Your task to perform on an android device: turn pop-ups off in chrome Image 0: 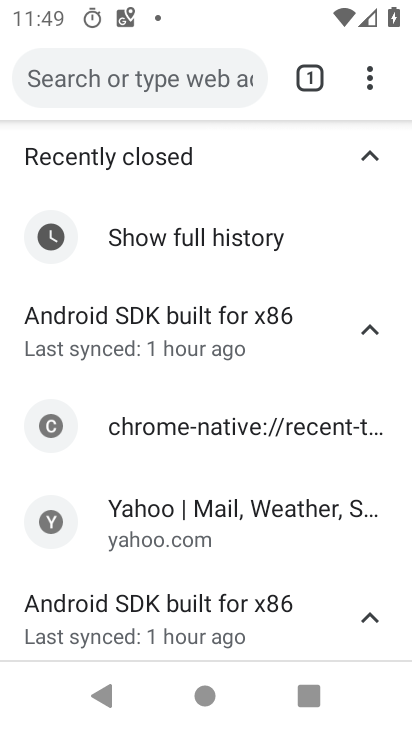
Step 0: press home button
Your task to perform on an android device: turn pop-ups off in chrome Image 1: 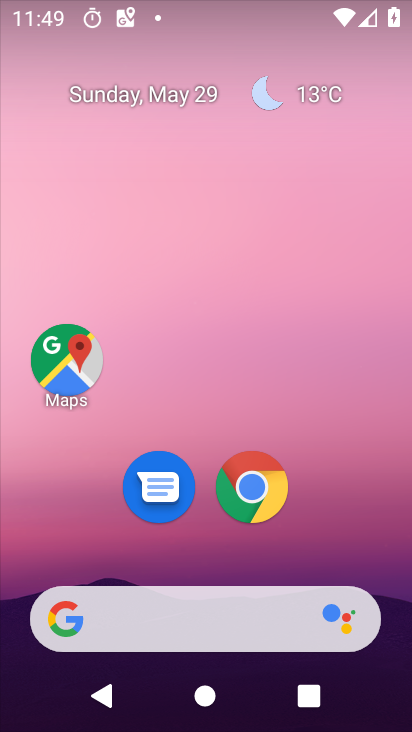
Step 1: click (233, 477)
Your task to perform on an android device: turn pop-ups off in chrome Image 2: 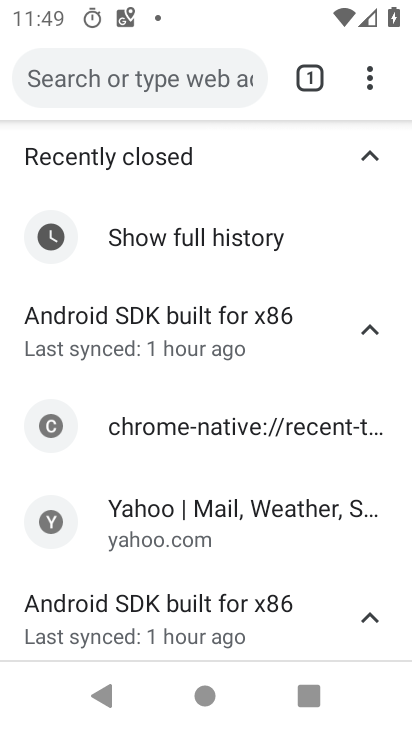
Step 2: click (355, 70)
Your task to perform on an android device: turn pop-ups off in chrome Image 3: 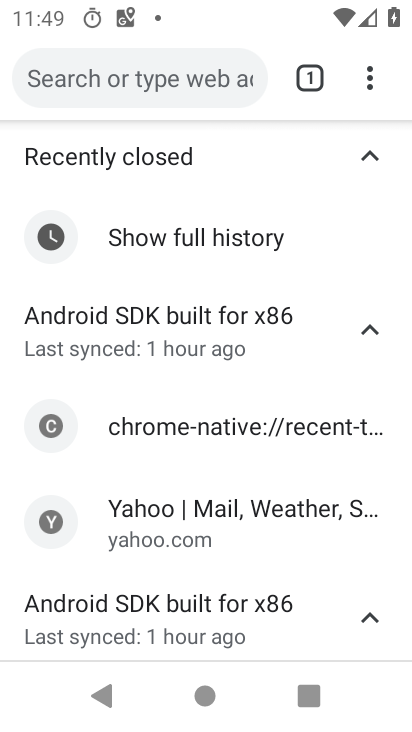
Step 3: click (367, 69)
Your task to perform on an android device: turn pop-ups off in chrome Image 4: 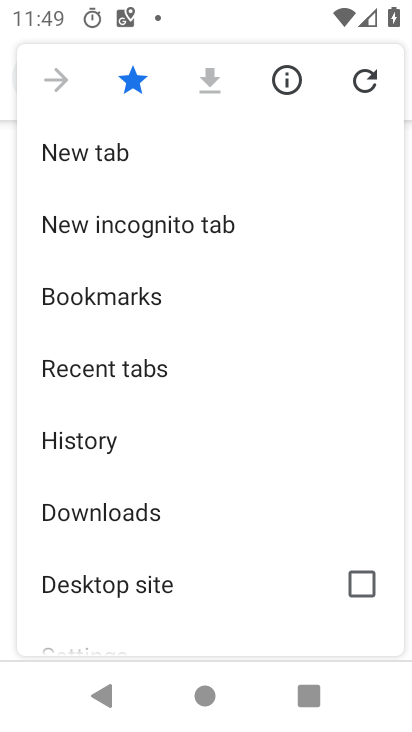
Step 4: drag from (234, 596) to (173, 229)
Your task to perform on an android device: turn pop-ups off in chrome Image 5: 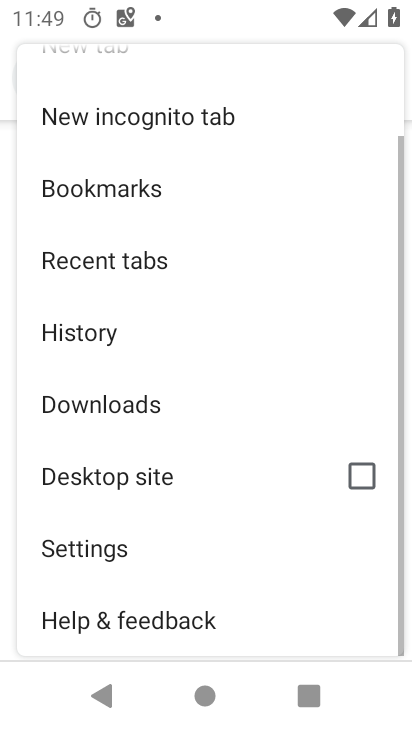
Step 5: click (94, 541)
Your task to perform on an android device: turn pop-ups off in chrome Image 6: 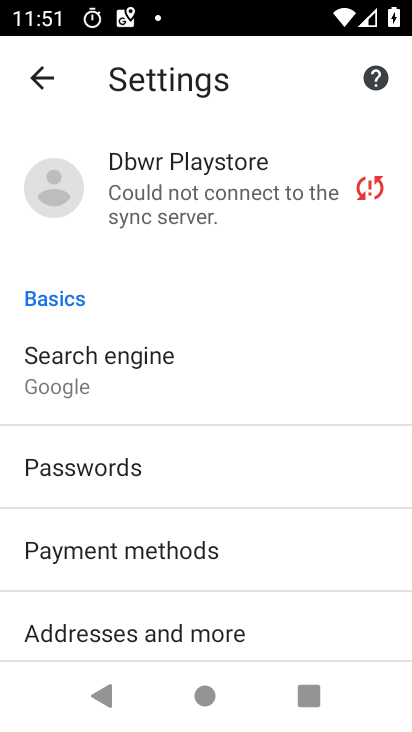
Step 6: drag from (279, 626) to (267, 328)
Your task to perform on an android device: turn pop-ups off in chrome Image 7: 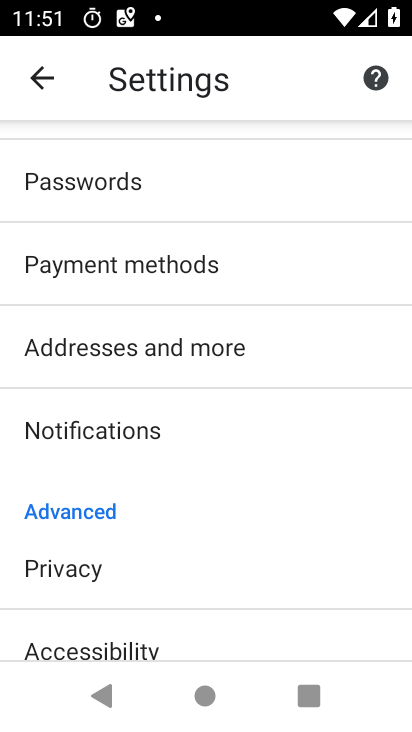
Step 7: drag from (141, 596) to (162, 350)
Your task to perform on an android device: turn pop-ups off in chrome Image 8: 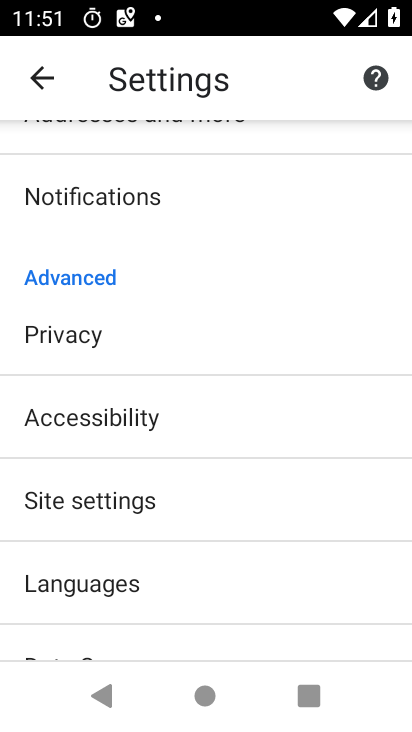
Step 8: click (79, 491)
Your task to perform on an android device: turn pop-ups off in chrome Image 9: 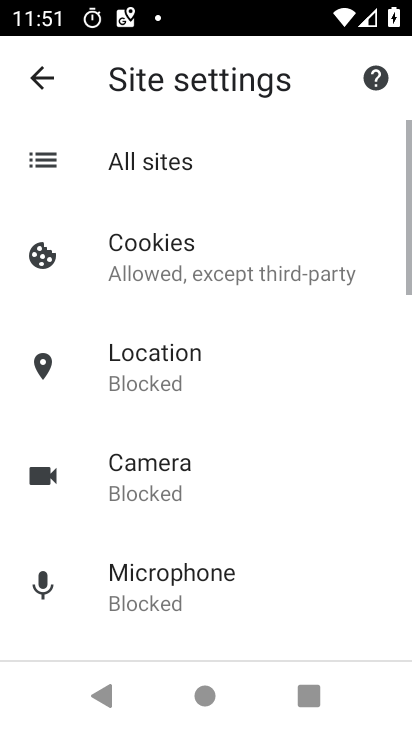
Step 9: drag from (272, 564) to (267, 271)
Your task to perform on an android device: turn pop-ups off in chrome Image 10: 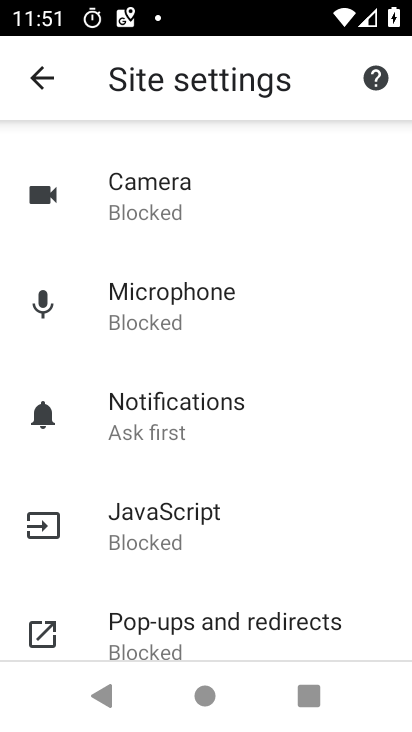
Step 10: click (149, 627)
Your task to perform on an android device: turn pop-ups off in chrome Image 11: 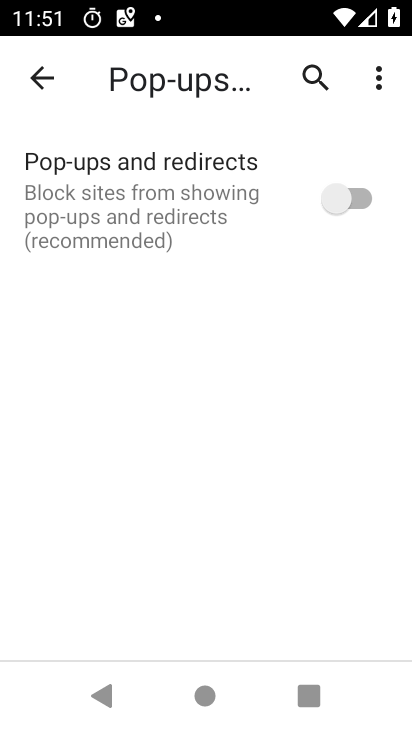
Step 11: task complete